Your task to perform on an android device: Check the weather Image 0: 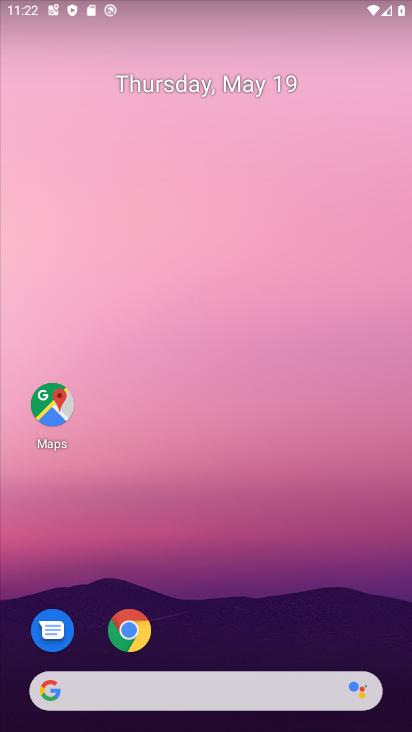
Step 0: drag from (224, 624) to (218, 159)
Your task to perform on an android device: Check the weather Image 1: 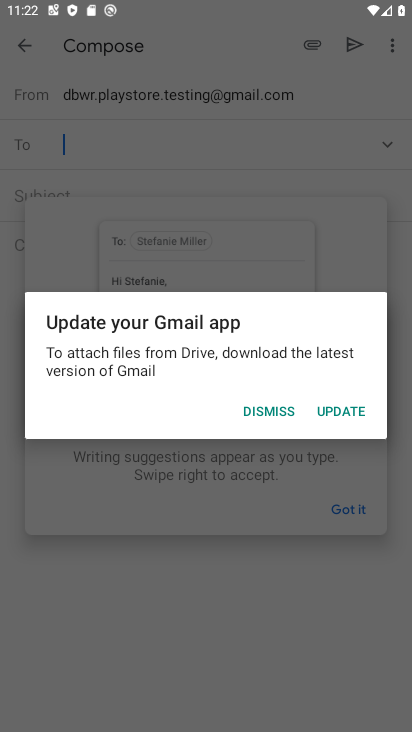
Step 1: press home button
Your task to perform on an android device: Check the weather Image 2: 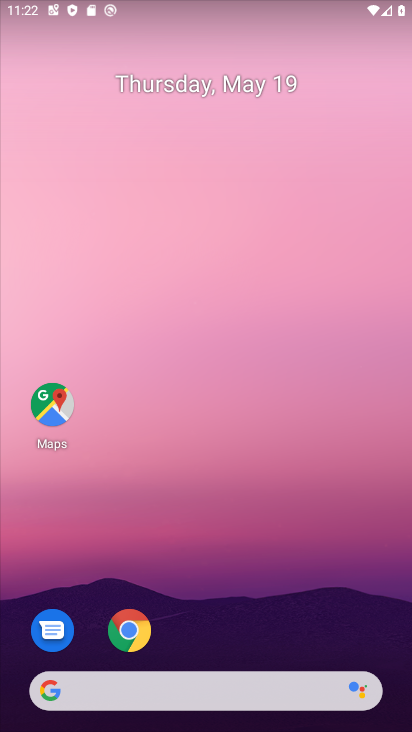
Step 2: drag from (267, 634) to (196, 215)
Your task to perform on an android device: Check the weather Image 3: 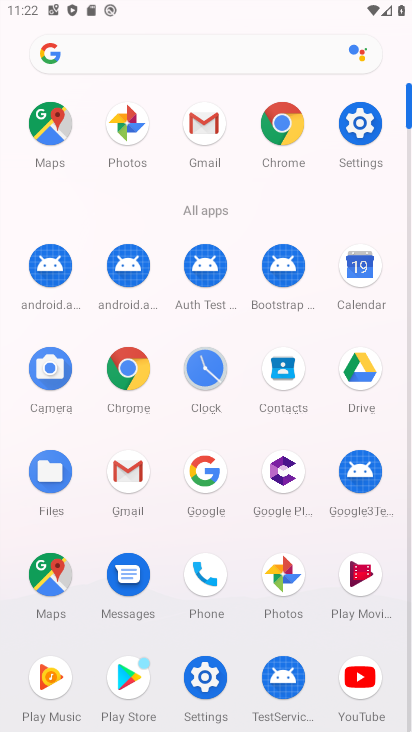
Step 3: click (204, 469)
Your task to perform on an android device: Check the weather Image 4: 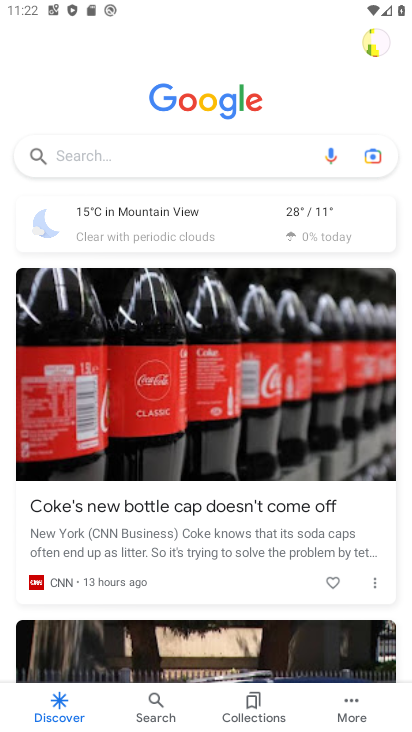
Step 4: click (167, 211)
Your task to perform on an android device: Check the weather Image 5: 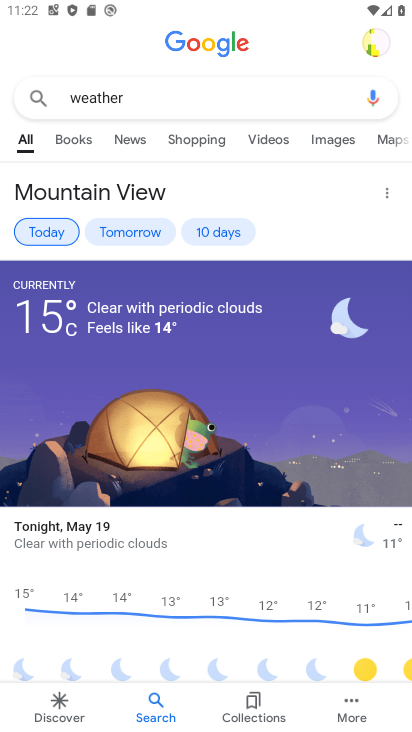
Step 5: task complete